Your task to perform on an android device: see sites visited before in the chrome app Image 0: 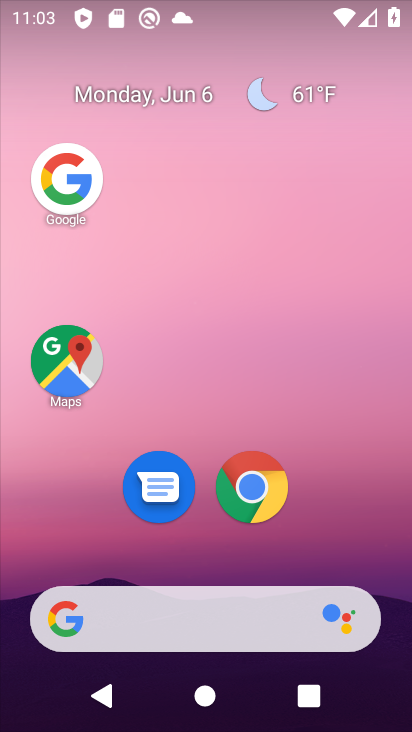
Step 0: click (253, 487)
Your task to perform on an android device: see sites visited before in the chrome app Image 1: 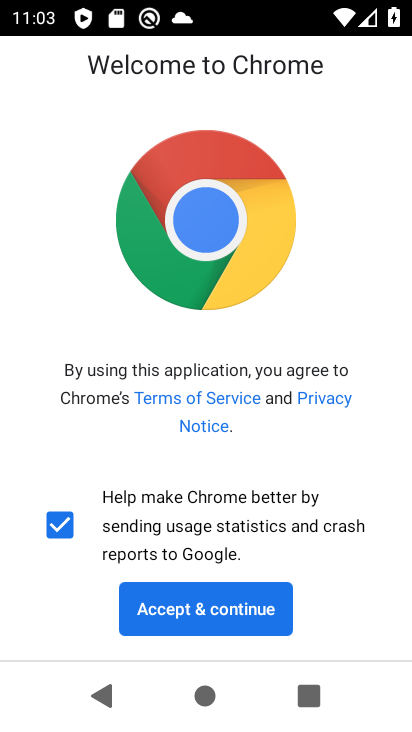
Step 1: click (273, 606)
Your task to perform on an android device: see sites visited before in the chrome app Image 2: 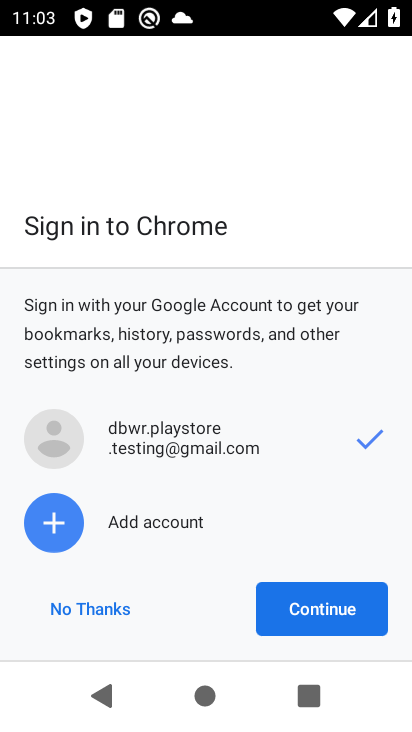
Step 2: click (360, 586)
Your task to perform on an android device: see sites visited before in the chrome app Image 3: 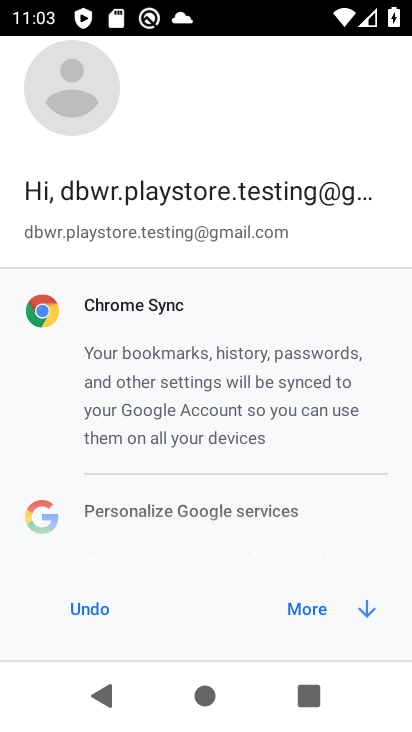
Step 3: click (335, 613)
Your task to perform on an android device: see sites visited before in the chrome app Image 4: 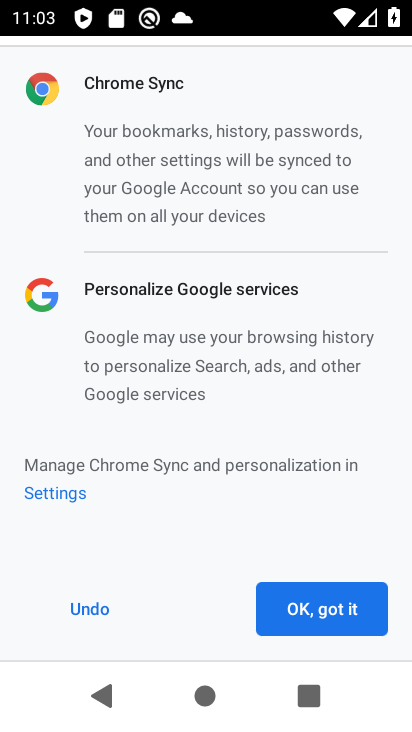
Step 4: click (330, 604)
Your task to perform on an android device: see sites visited before in the chrome app Image 5: 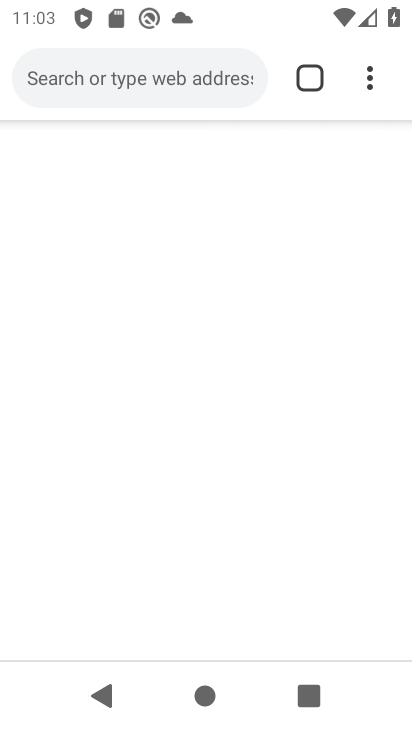
Step 5: click (379, 68)
Your task to perform on an android device: see sites visited before in the chrome app Image 6: 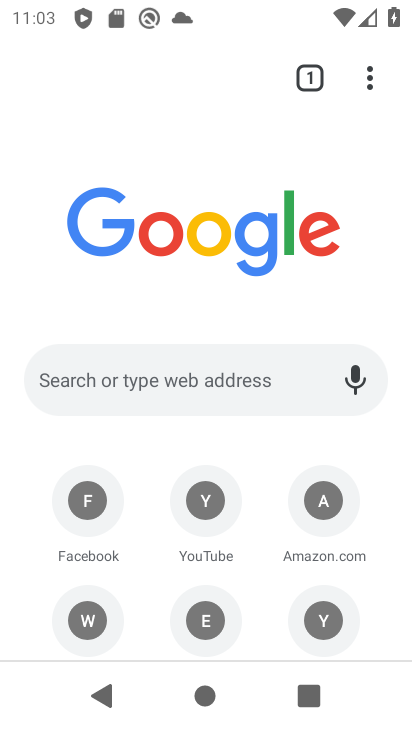
Step 6: click (378, 90)
Your task to perform on an android device: see sites visited before in the chrome app Image 7: 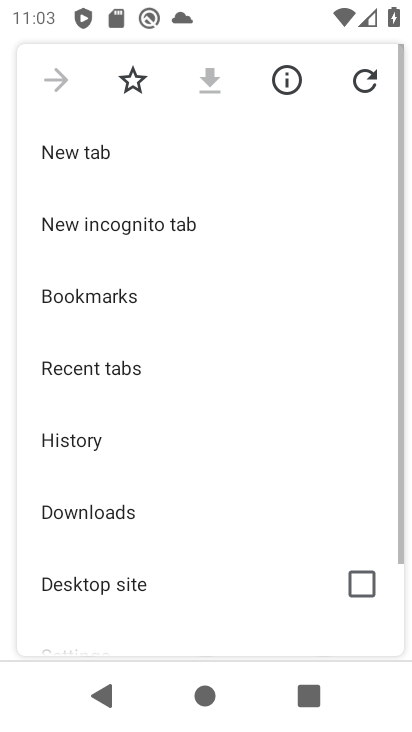
Step 7: click (160, 382)
Your task to perform on an android device: see sites visited before in the chrome app Image 8: 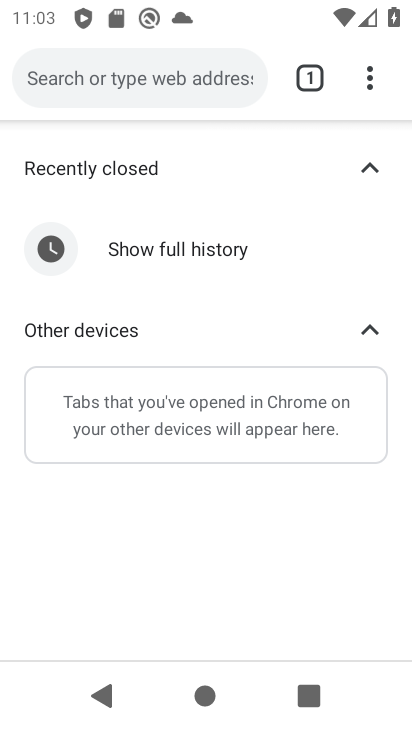
Step 8: task complete